Your task to perform on an android device: make emails show in primary in the gmail app Image 0: 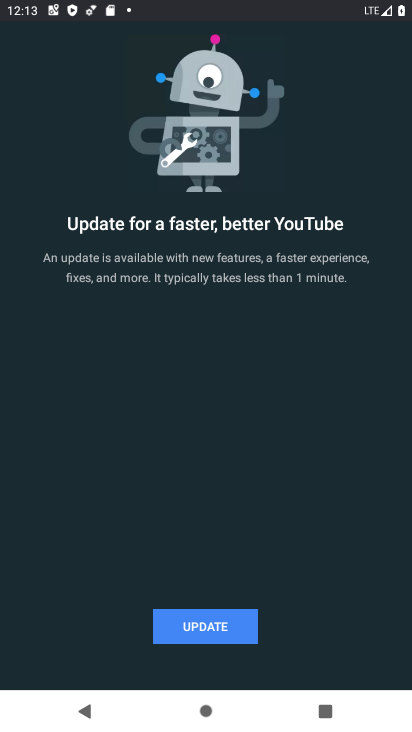
Step 0: press back button
Your task to perform on an android device: make emails show in primary in the gmail app Image 1: 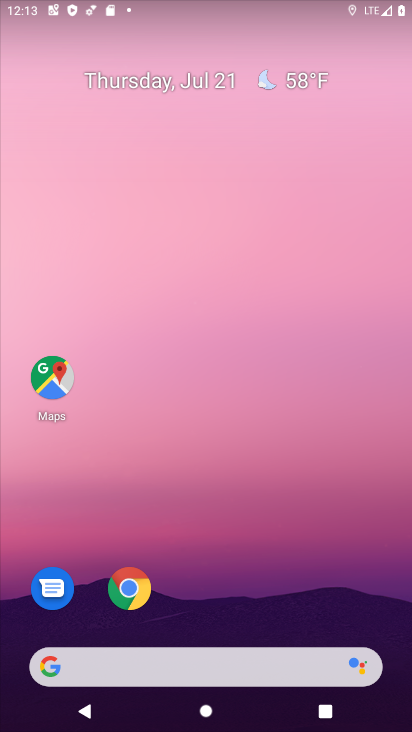
Step 1: drag from (268, 622) to (286, 181)
Your task to perform on an android device: make emails show in primary in the gmail app Image 2: 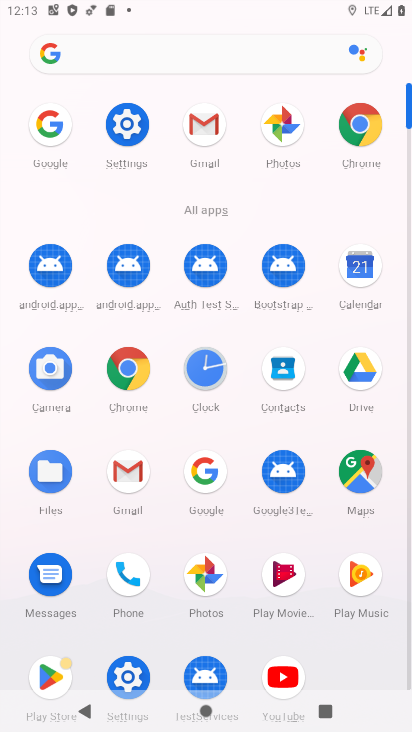
Step 2: click (113, 473)
Your task to perform on an android device: make emails show in primary in the gmail app Image 3: 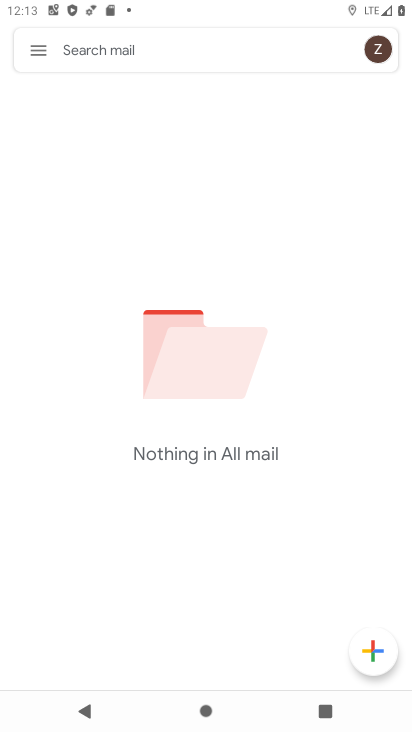
Step 3: click (33, 39)
Your task to perform on an android device: make emails show in primary in the gmail app Image 4: 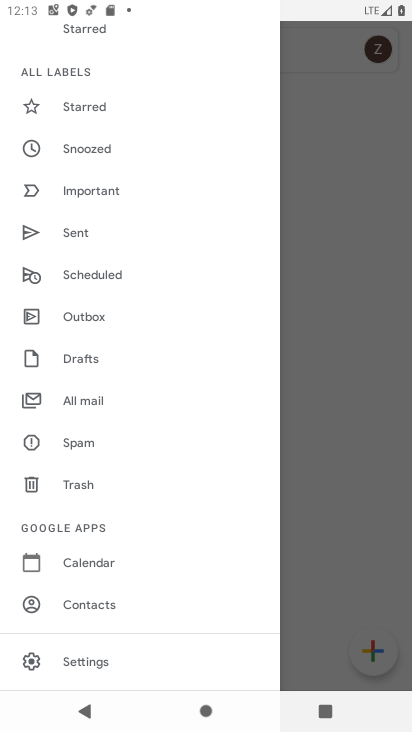
Step 4: click (86, 652)
Your task to perform on an android device: make emails show in primary in the gmail app Image 5: 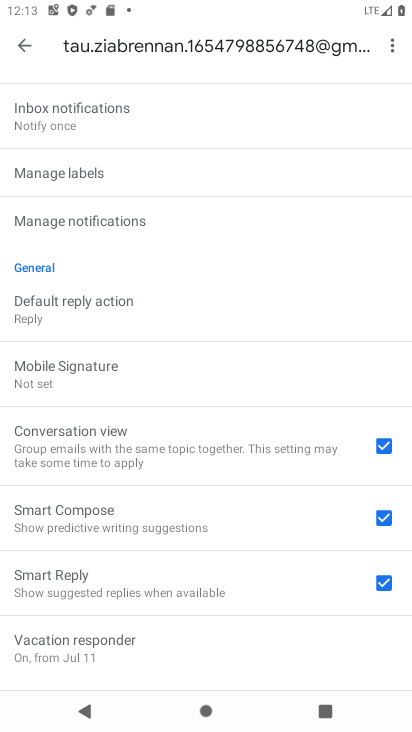
Step 5: drag from (81, 179) to (145, 508)
Your task to perform on an android device: make emails show in primary in the gmail app Image 6: 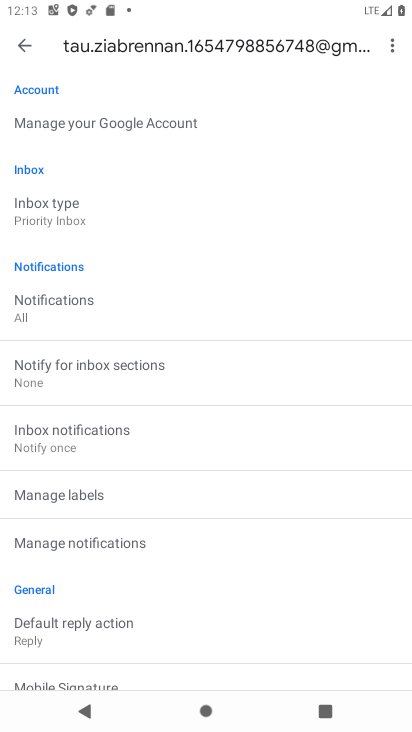
Step 6: click (105, 210)
Your task to perform on an android device: make emails show in primary in the gmail app Image 7: 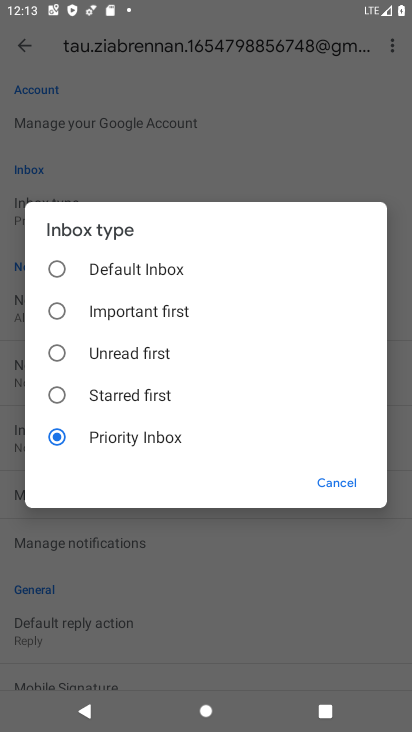
Step 7: click (120, 259)
Your task to perform on an android device: make emails show in primary in the gmail app Image 8: 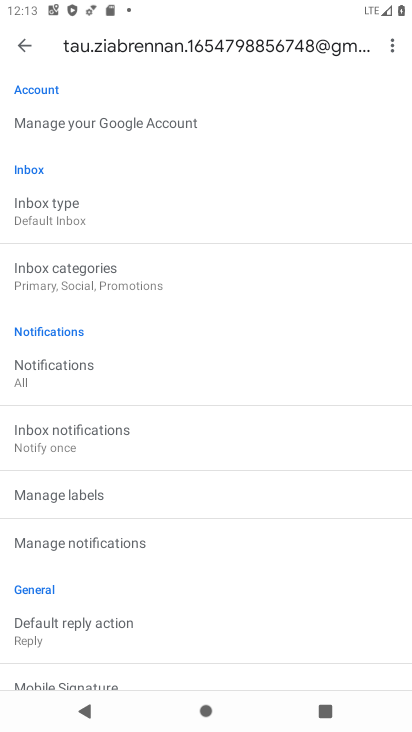
Step 8: task complete